Your task to perform on an android device: Is it going to rain tomorrow? Image 0: 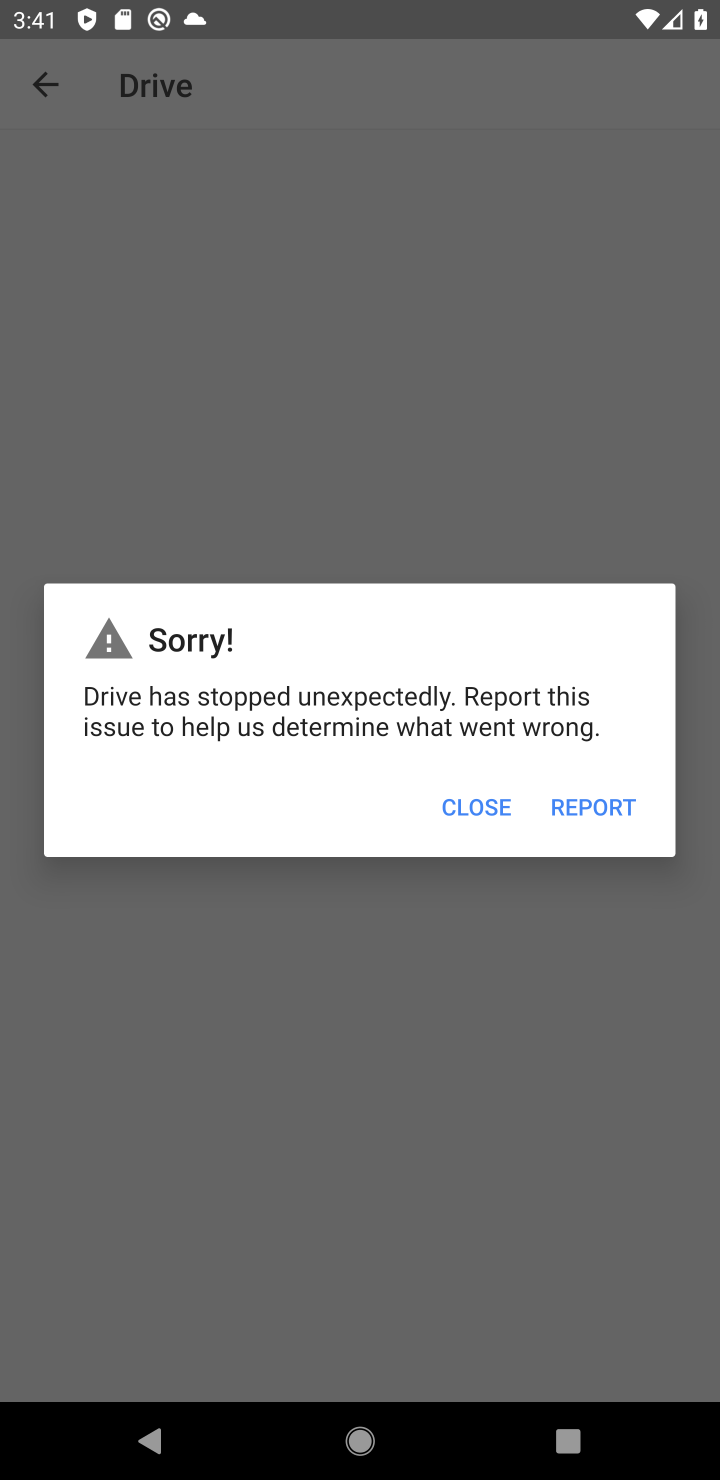
Step 0: press back button
Your task to perform on an android device: Is it going to rain tomorrow? Image 1: 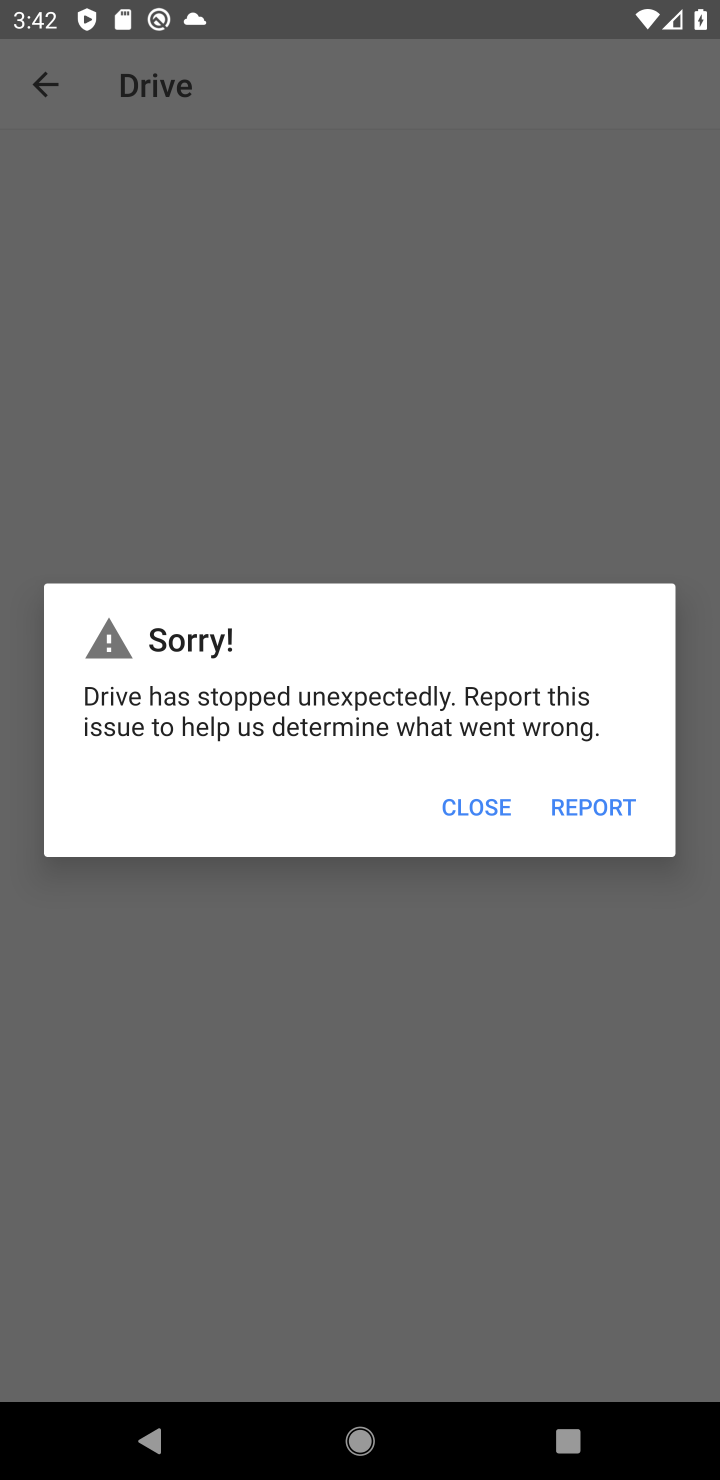
Step 1: press home button
Your task to perform on an android device: Is it going to rain tomorrow? Image 2: 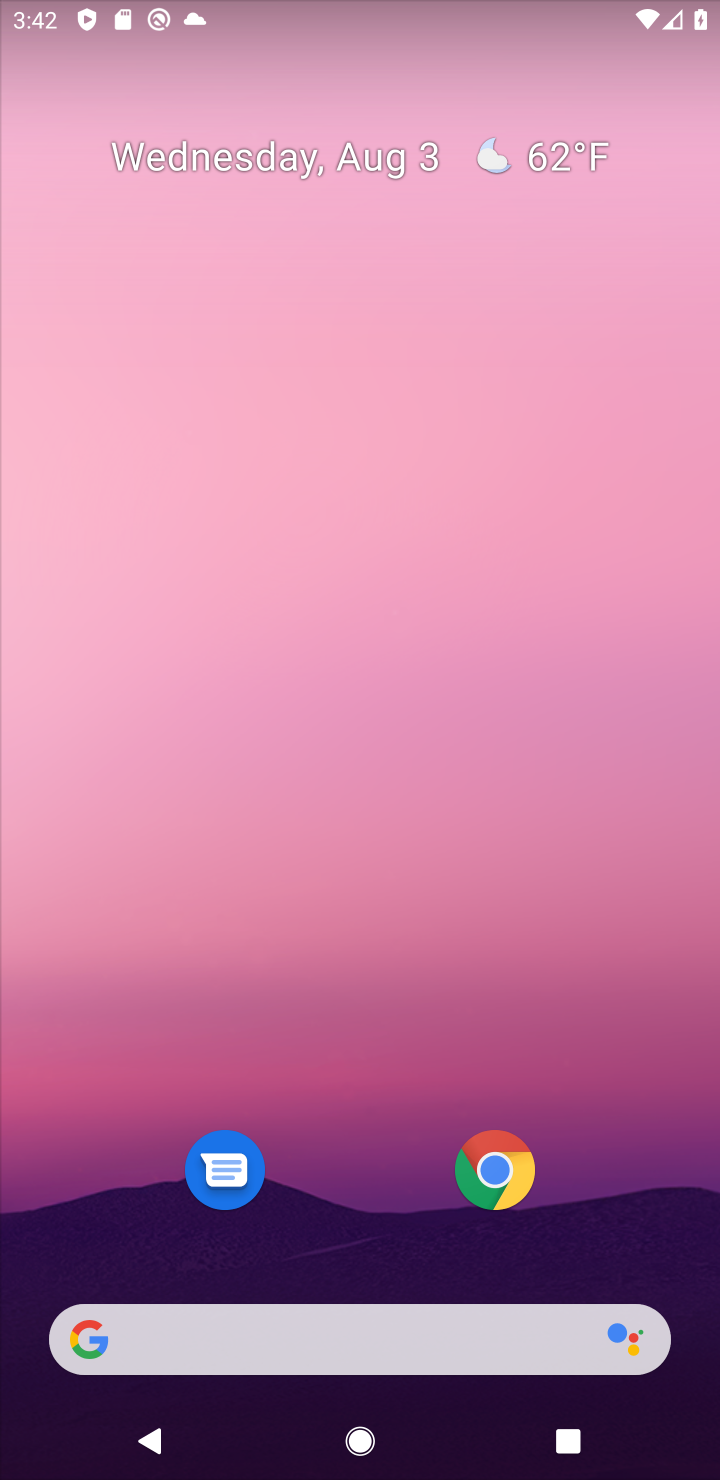
Step 2: drag from (381, 1197) to (383, 33)
Your task to perform on an android device: Is it going to rain tomorrow? Image 3: 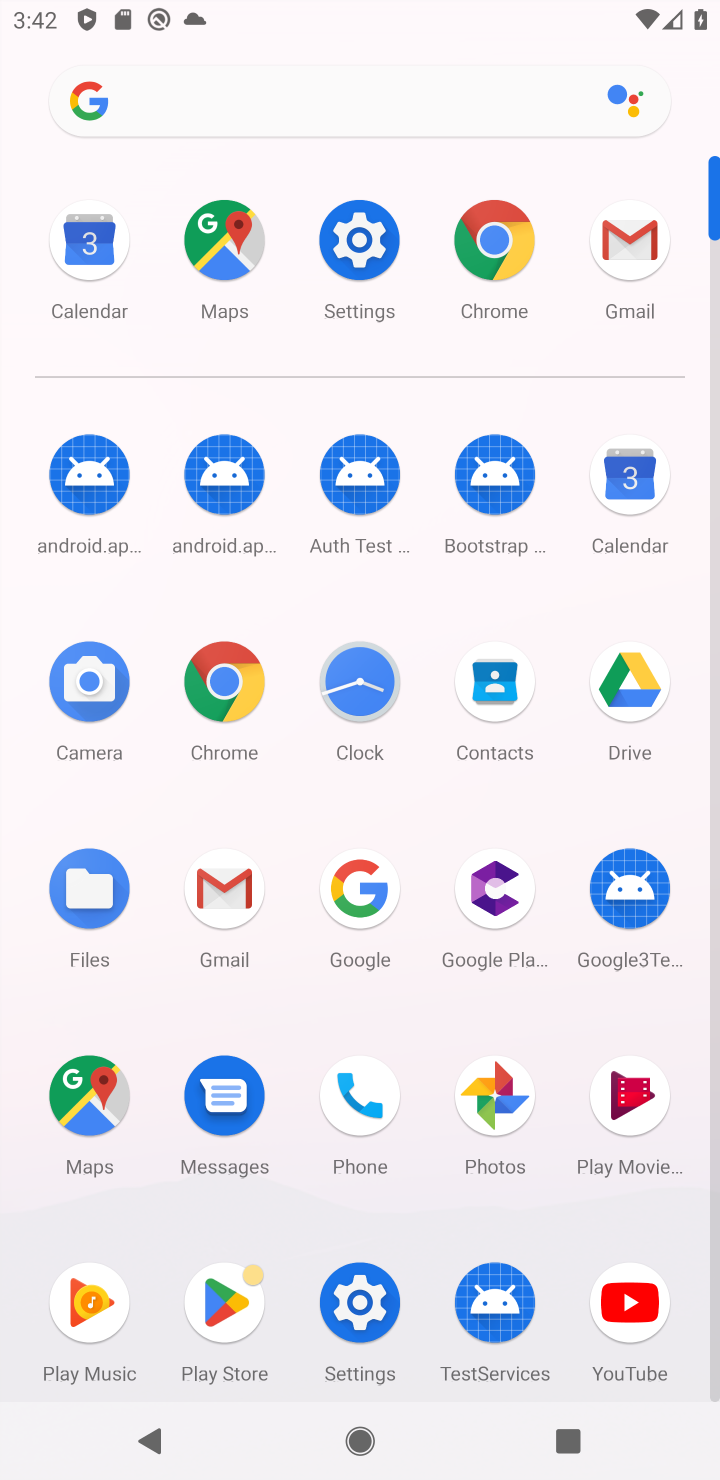
Step 3: click (360, 992)
Your task to perform on an android device: Is it going to rain tomorrow? Image 4: 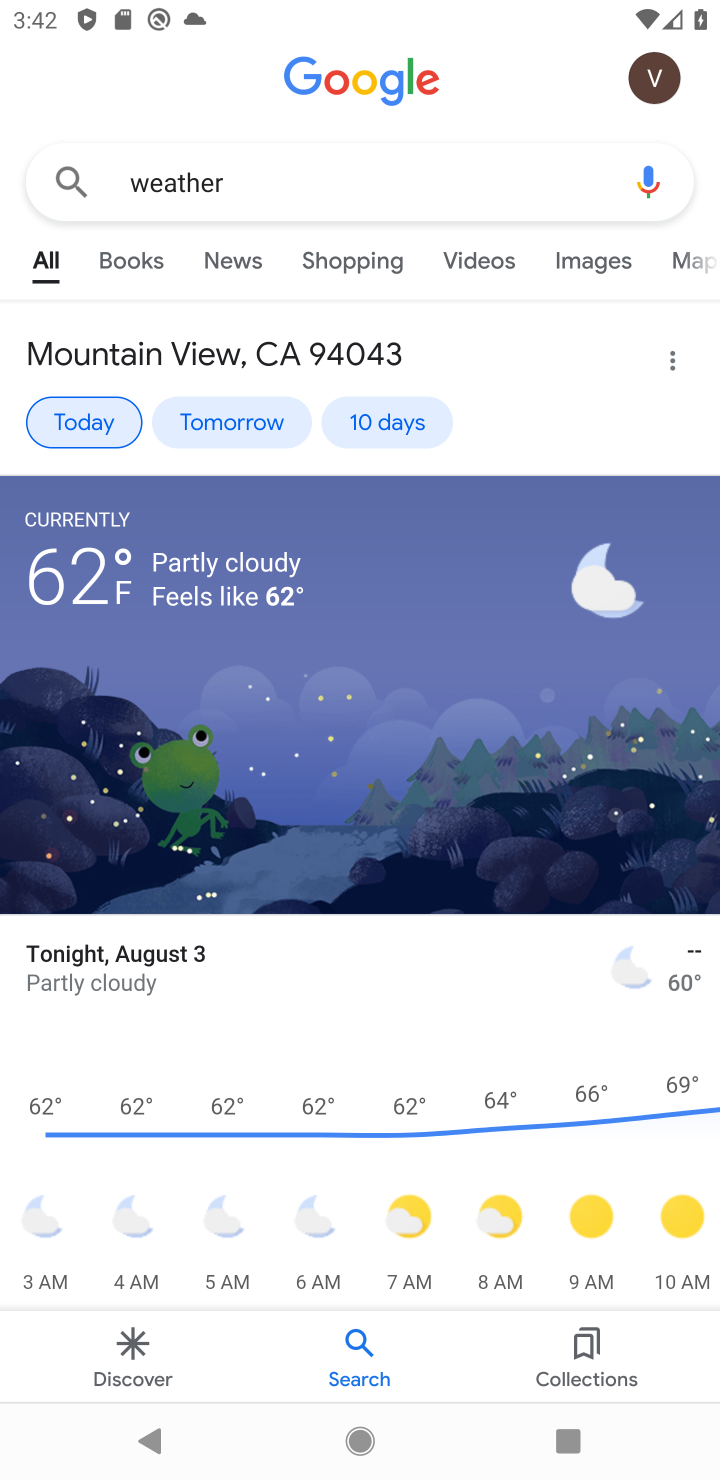
Step 4: click (221, 431)
Your task to perform on an android device: Is it going to rain tomorrow? Image 5: 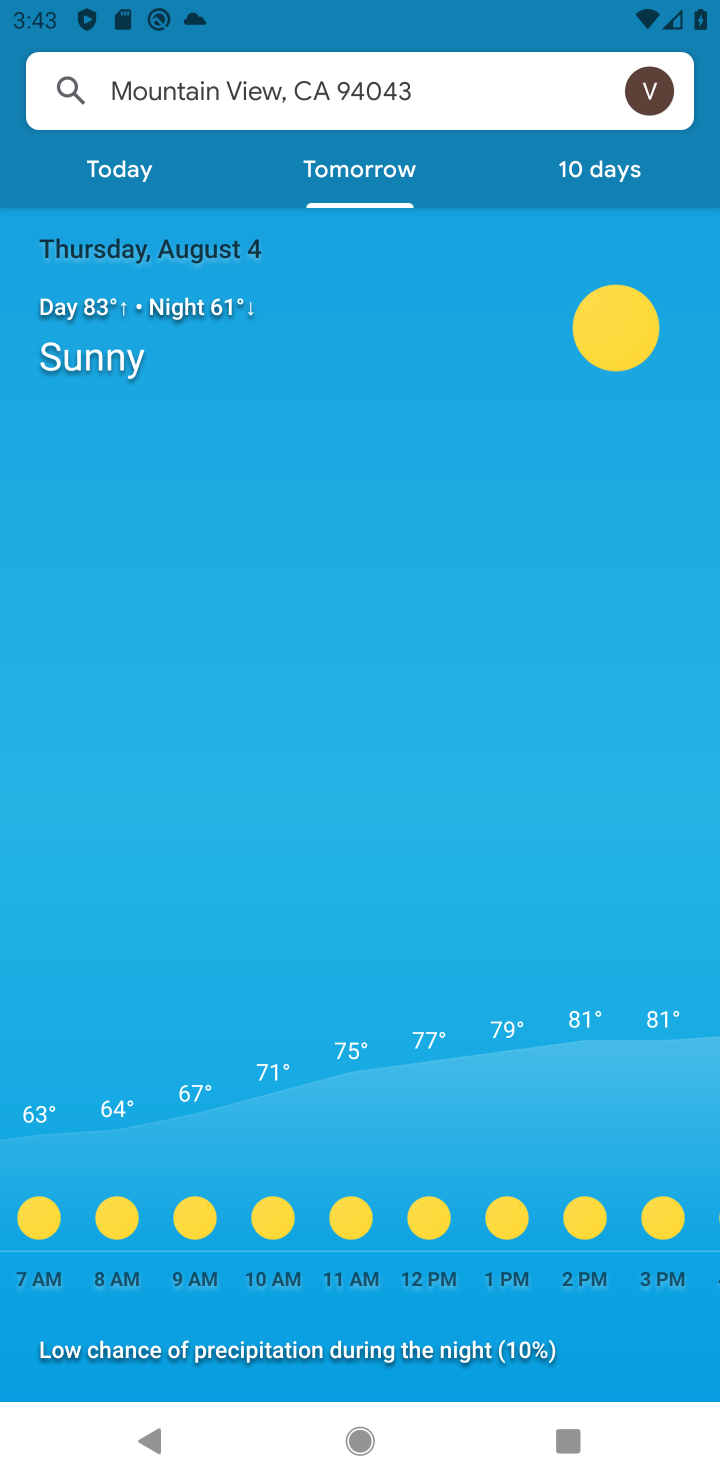
Step 5: task complete